Your task to perform on an android device: open device folders in google photos Image 0: 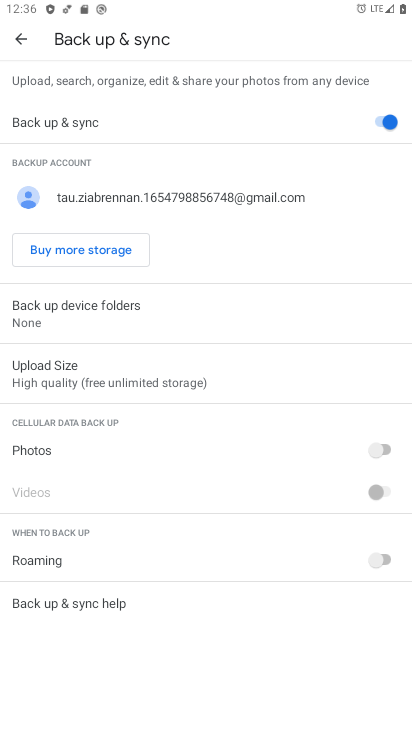
Step 0: click (24, 36)
Your task to perform on an android device: open device folders in google photos Image 1: 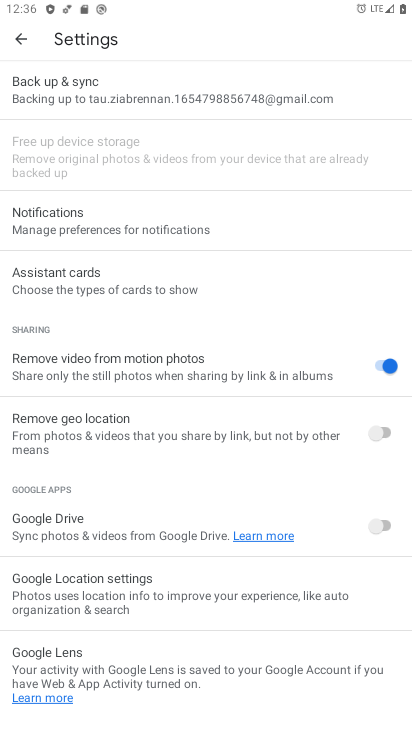
Step 1: press back button
Your task to perform on an android device: open device folders in google photos Image 2: 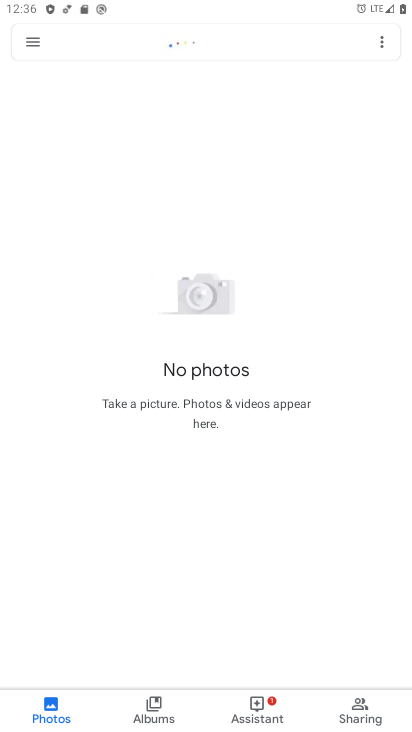
Step 2: click (31, 42)
Your task to perform on an android device: open device folders in google photos Image 3: 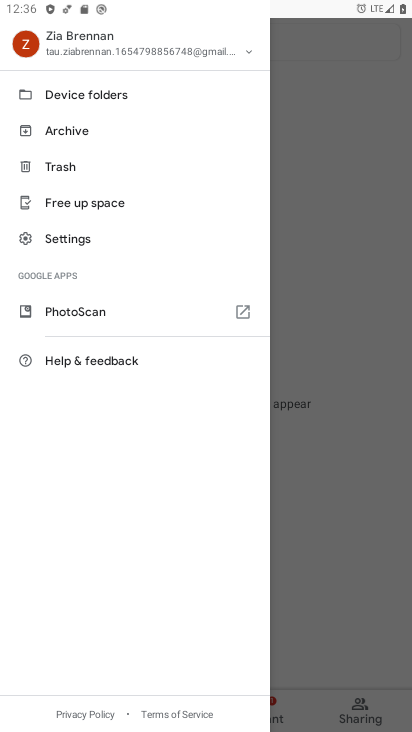
Step 3: click (105, 94)
Your task to perform on an android device: open device folders in google photos Image 4: 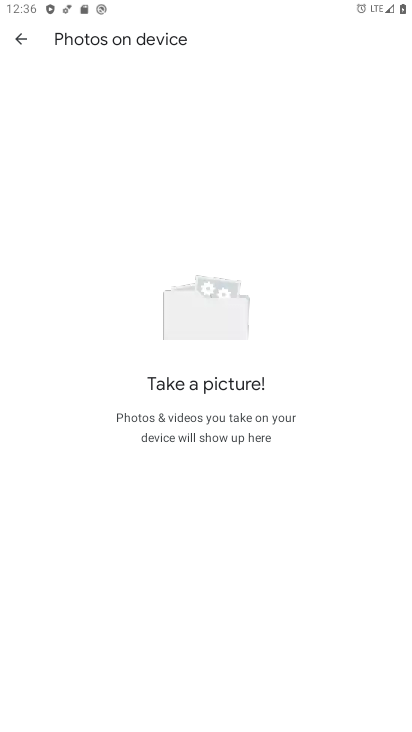
Step 4: task complete